Your task to perform on an android device: change notification settings in the gmail app Image 0: 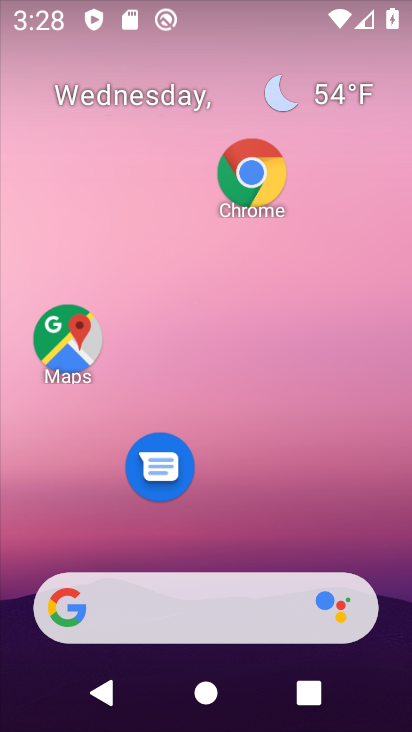
Step 0: click (298, 110)
Your task to perform on an android device: change notification settings in the gmail app Image 1: 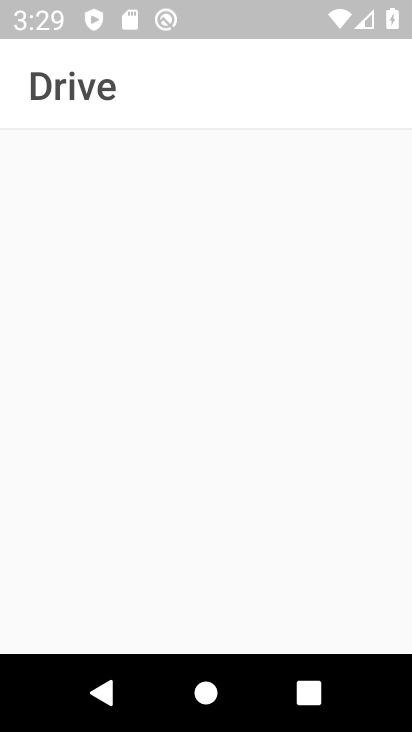
Step 1: press back button
Your task to perform on an android device: change notification settings in the gmail app Image 2: 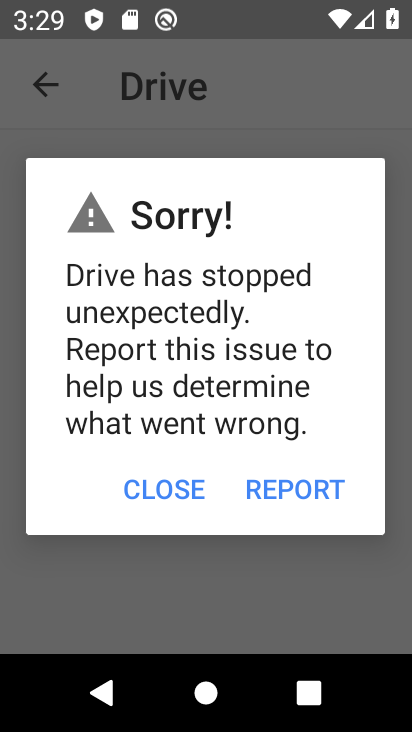
Step 2: press back button
Your task to perform on an android device: change notification settings in the gmail app Image 3: 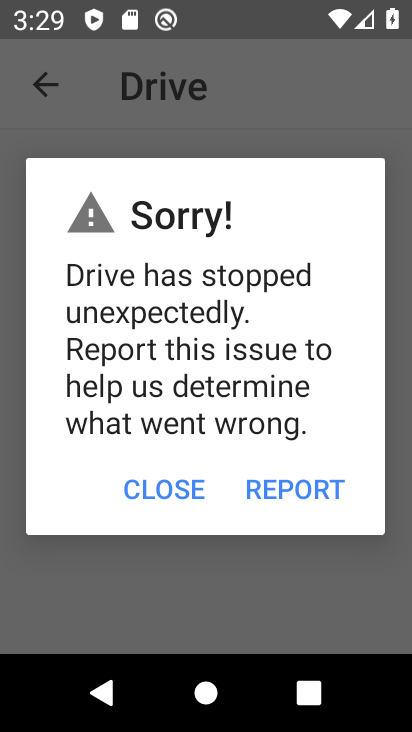
Step 3: press home button
Your task to perform on an android device: change notification settings in the gmail app Image 4: 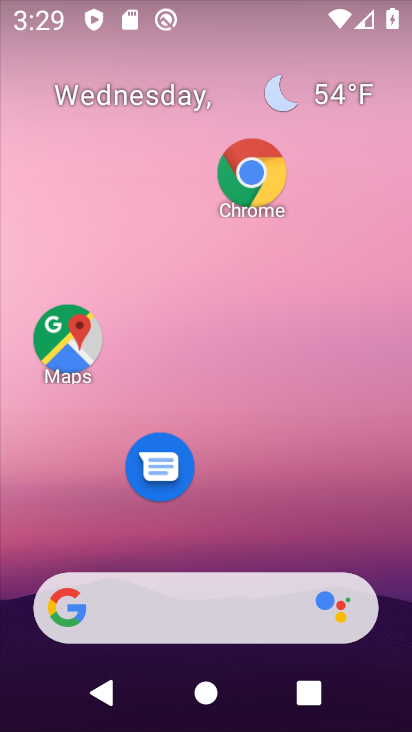
Step 4: drag from (230, 488) to (285, 48)
Your task to perform on an android device: change notification settings in the gmail app Image 5: 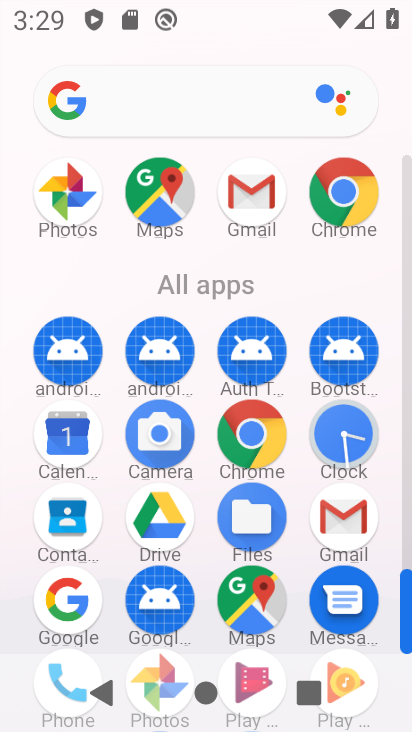
Step 5: click (262, 201)
Your task to perform on an android device: change notification settings in the gmail app Image 6: 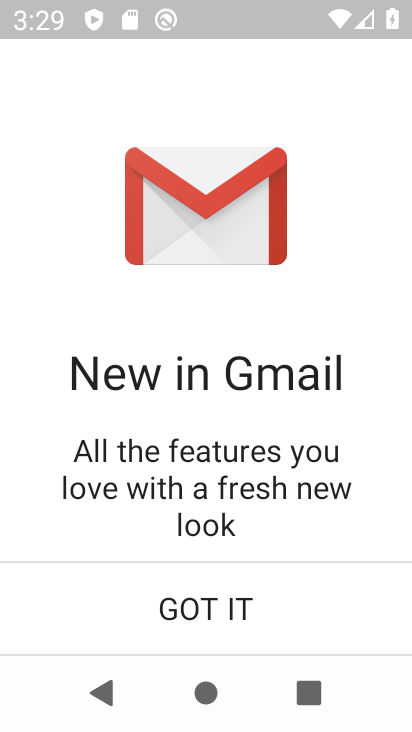
Step 6: click (258, 623)
Your task to perform on an android device: change notification settings in the gmail app Image 7: 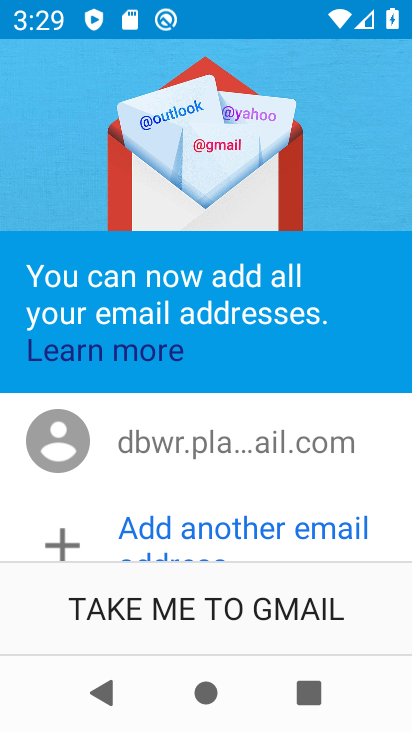
Step 7: click (174, 611)
Your task to perform on an android device: change notification settings in the gmail app Image 8: 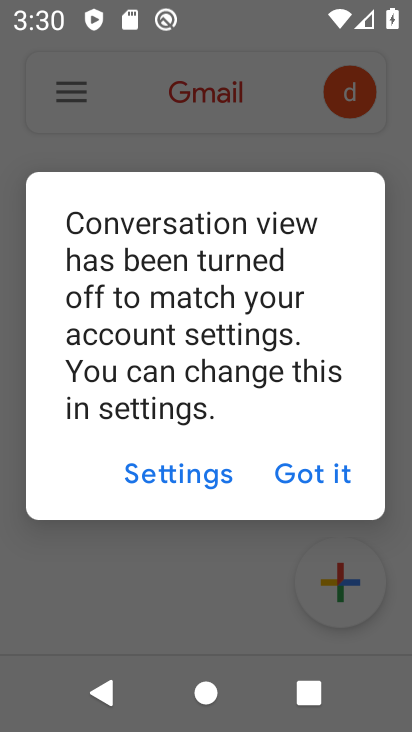
Step 8: click (304, 477)
Your task to perform on an android device: change notification settings in the gmail app Image 9: 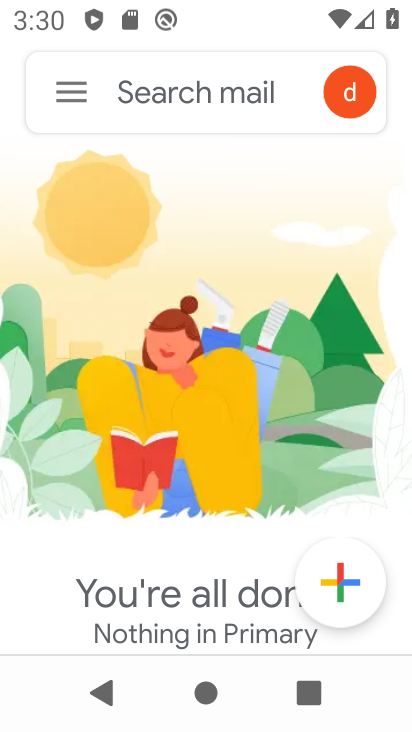
Step 9: click (69, 91)
Your task to perform on an android device: change notification settings in the gmail app Image 10: 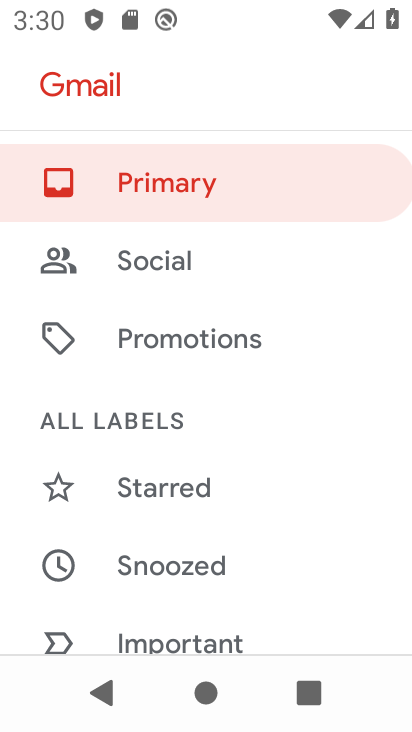
Step 10: drag from (165, 599) to (165, 135)
Your task to perform on an android device: change notification settings in the gmail app Image 11: 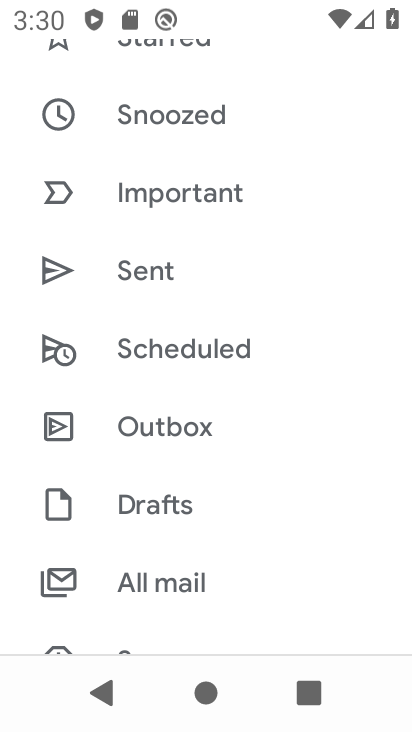
Step 11: drag from (172, 578) to (171, 26)
Your task to perform on an android device: change notification settings in the gmail app Image 12: 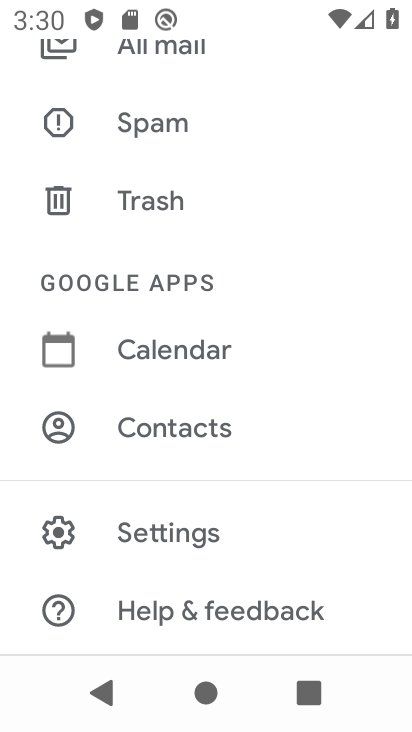
Step 12: click (159, 537)
Your task to perform on an android device: change notification settings in the gmail app Image 13: 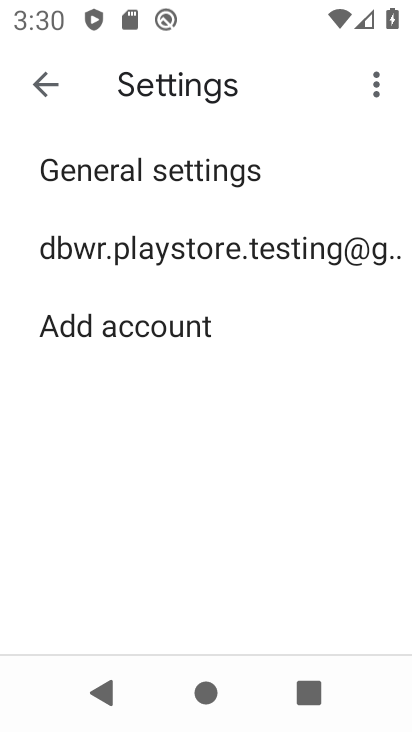
Step 13: click (149, 252)
Your task to perform on an android device: change notification settings in the gmail app Image 14: 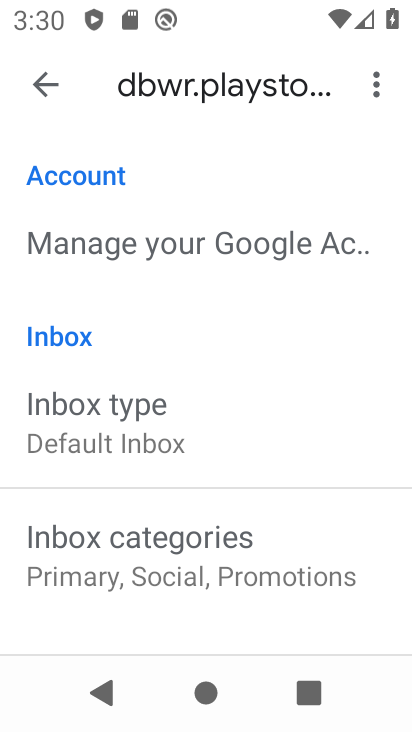
Step 14: drag from (168, 596) to (207, 192)
Your task to perform on an android device: change notification settings in the gmail app Image 15: 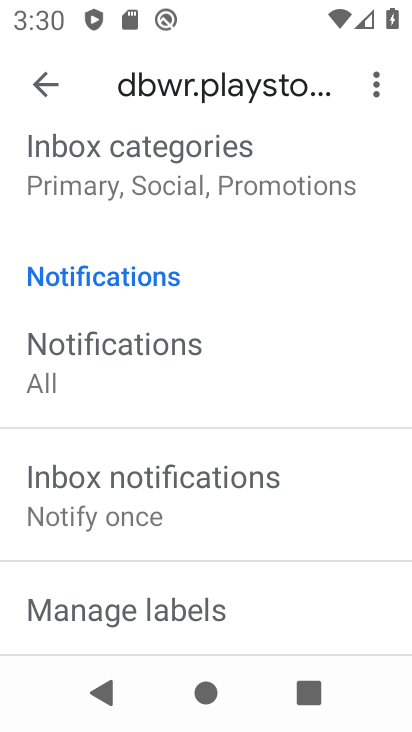
Step 15: drag from (149, 592) to (183, 69)
Your task to perform on an android device: change notification settings in the gmail app Image 16: 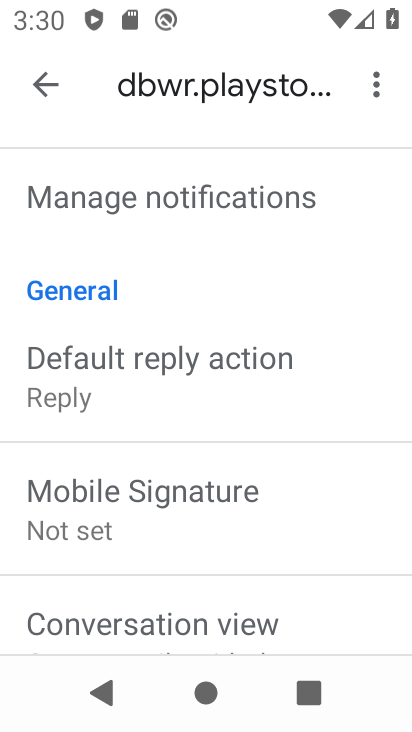
Step 16: drag from (177, 585) to (232, 157)
Your task to perform on an android device: change notification settings in the gmail app Image 17: 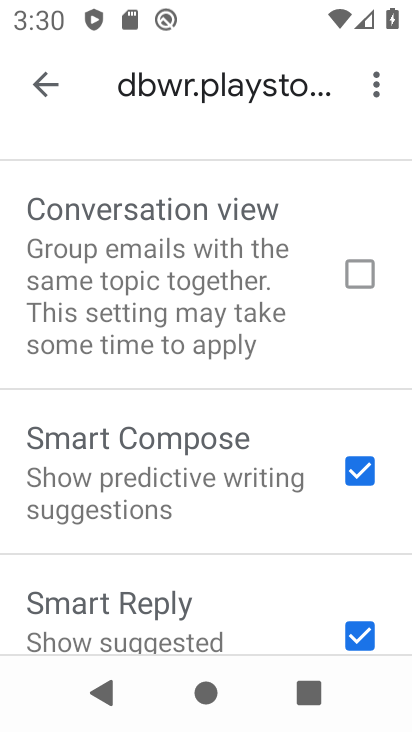
Step 17: drag from (167, 581) to (234, 80)
Your task to perform on an android device: change notification settings in the gmail app Image 18: 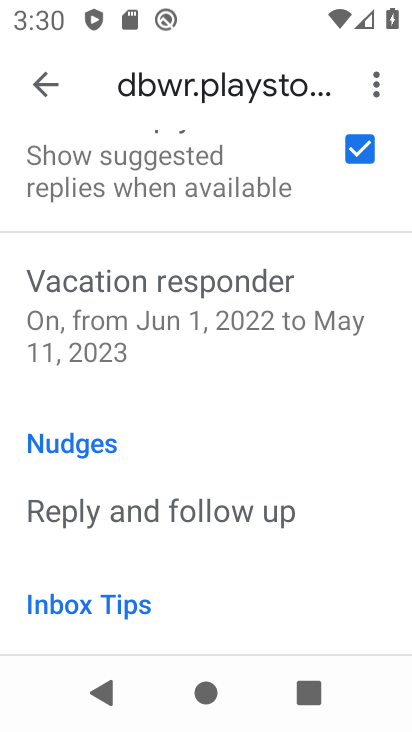
Step 18: drag from (177, 245) to (173, 695)
Your task to perform on an android device: change notification settings in the gmail app Image 19: 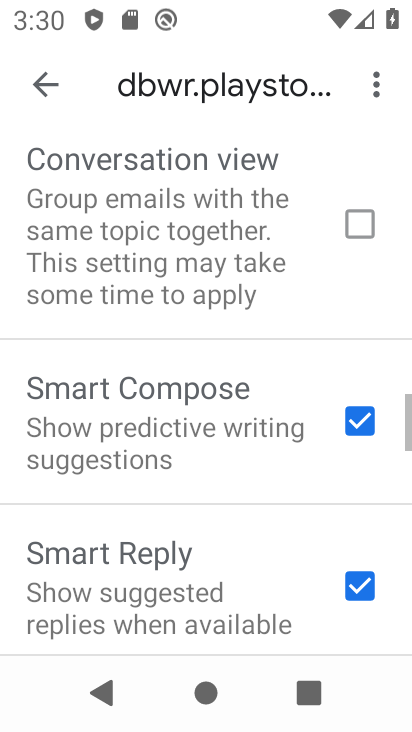
Step 19: drag from (189, 236) to (175, 683)
Your task to perform on an android device: change notification settings in the gmail app Image 20: 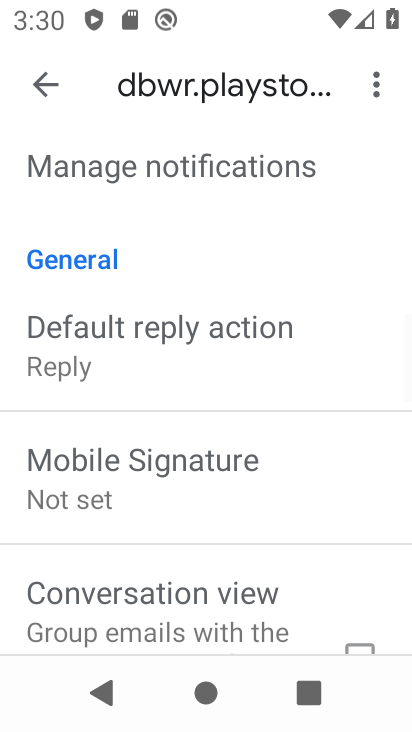
Step 20: drag from (182, 225) to (214, 528)
Your task to perform on an android device: change notification settings in the gmail app Image 21: 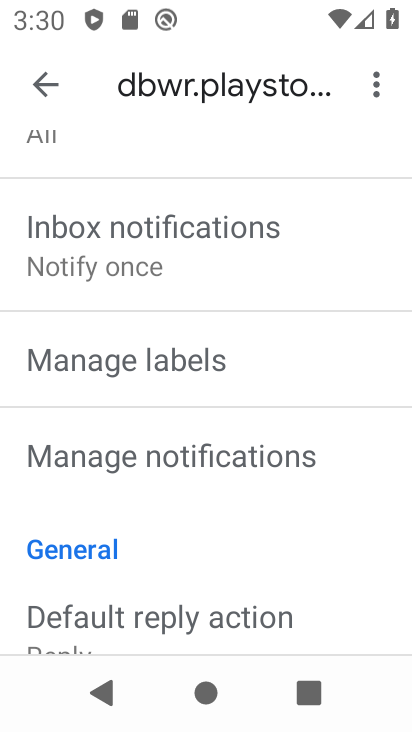
Step 21: click (139, 452)
Your task to perform on an android device: change notification settings in the gmail app Image 22: 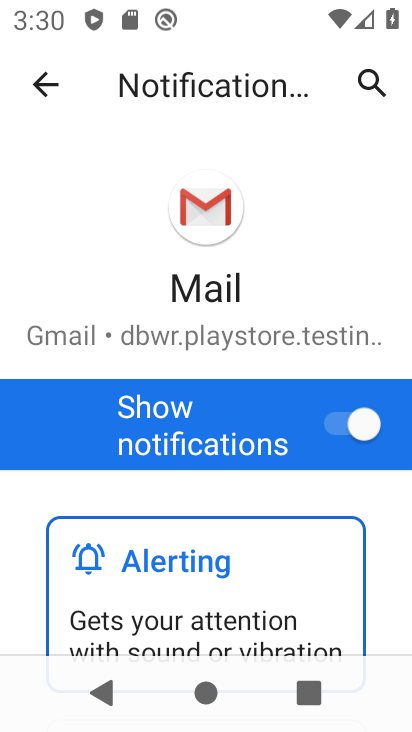
Step 22: drag from (268, 545) to (313, 94)
Your task to perform on an android device: change notification settings in the gmail app Image 23: 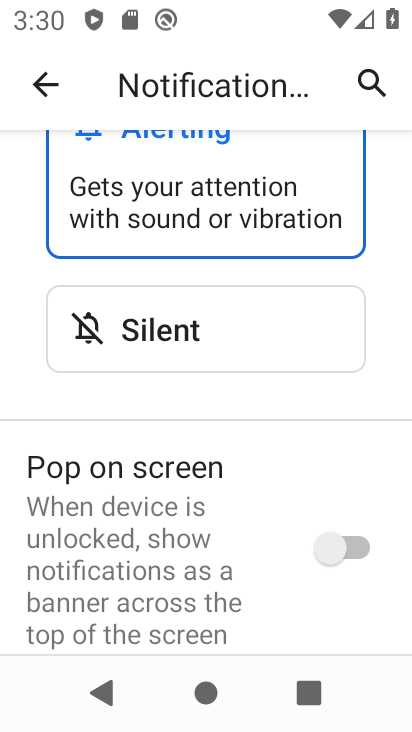
Step 23: click (352, 539)
Your task to perform on an android device: change notification settings in the gmail app Image 24: 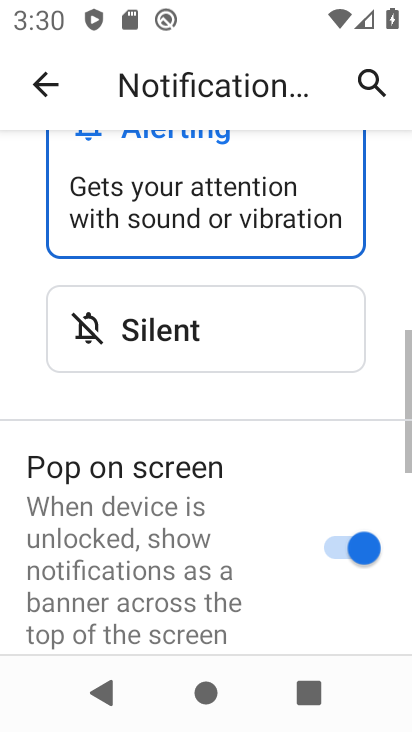
Step 24: task complete